Your task to perform on an android device: toggle improve location accuracy Image 0: 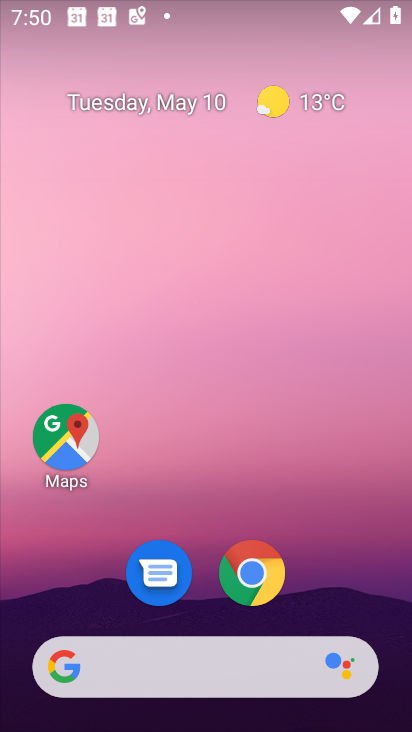
Step 0: drag from (357, 548) to (224, 9)
Your task to perform on an android device: toggle improve location accuracy Image 1: 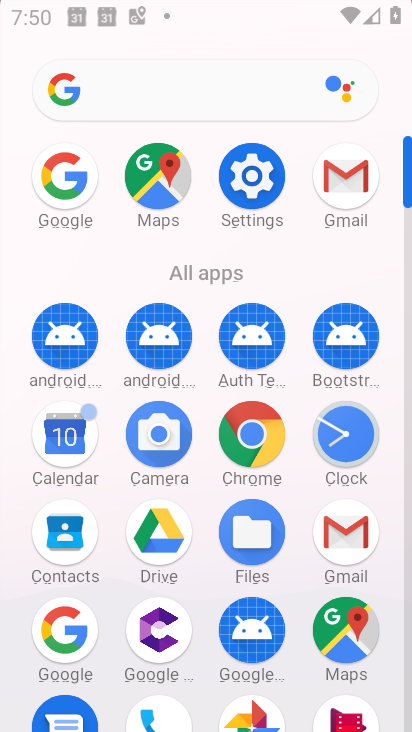
Step 1: click (251, 226)
Your task to perform on an android device: toggle improve location accuracy Image 2: 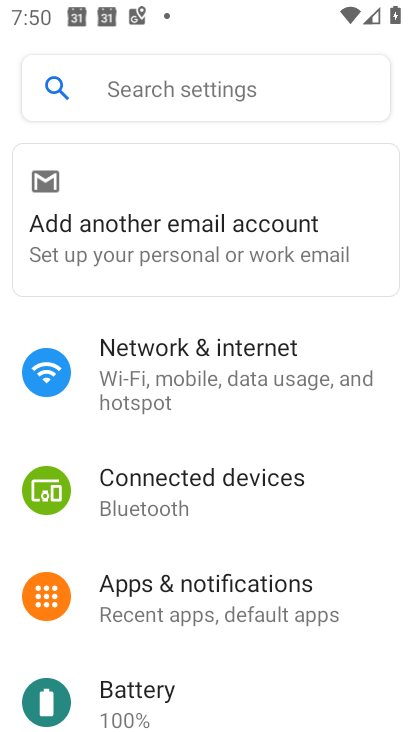
Step 2: drag from (379, 595) to (361, 134)
Your task to perform on an android device: toggle improve location accuracy Image 3: 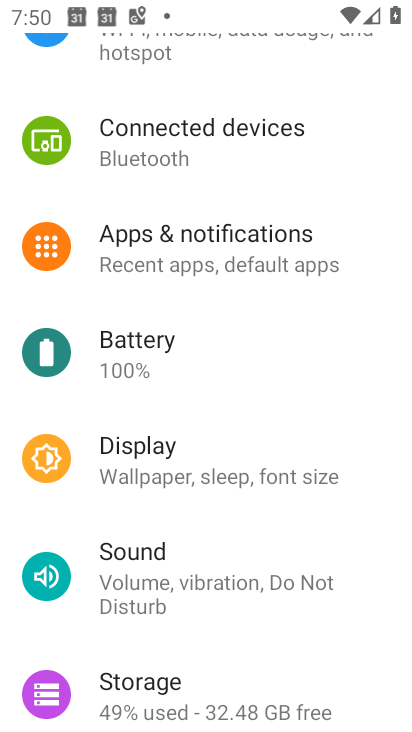
Step 3: drag from (337, 575) to (337, 129)
Your task to perform on an android device: toggle improve location accuracy Image 4: 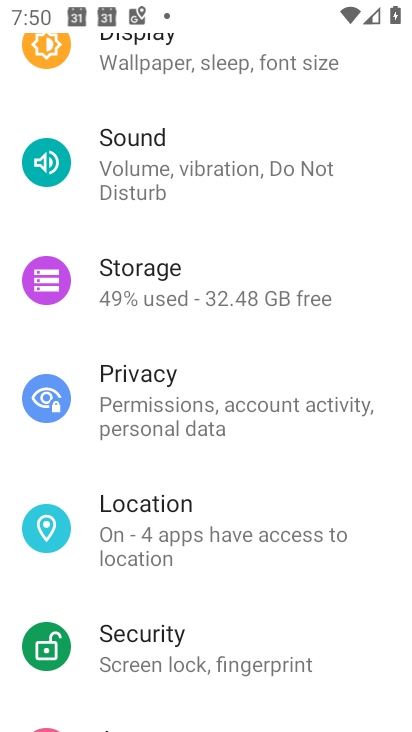
Step 4: click (129, 534)
Your task to perform on an android device: toggle improve location accuracy Image 5: 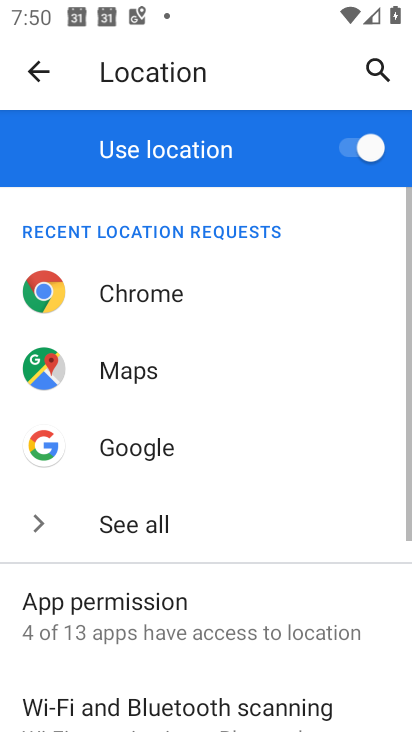
Step 5: drag from (299, 599) to (283, 218)
Your task to perform on an android device: toggle improve location accuracy Image 6: 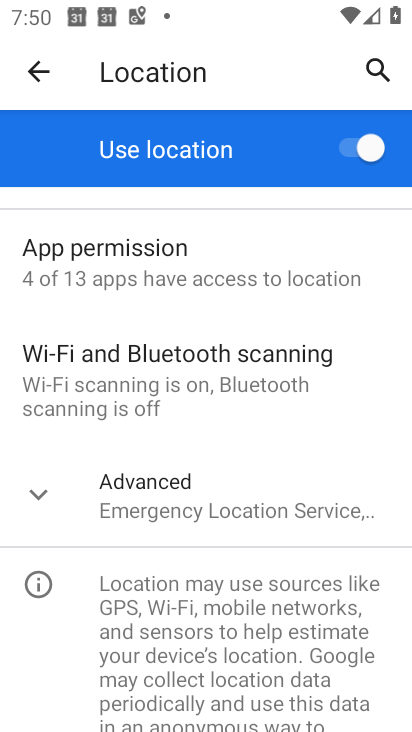
Step 6: click (44, 502)
Your task to perform on an android device: toggle improve location accuracy Image 7: 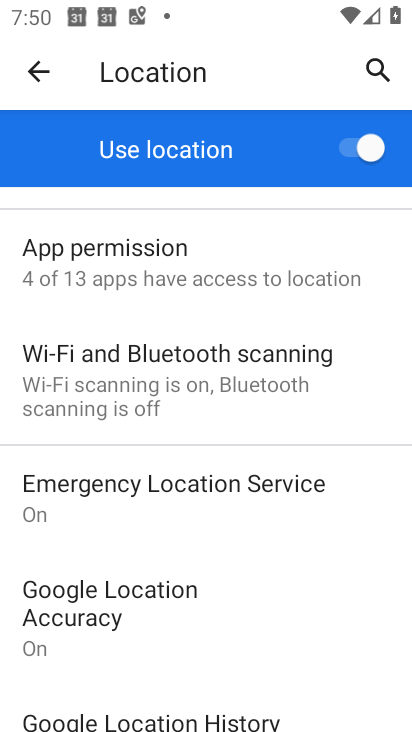
Step 7: click (93, 623)
Your task to perform on an android device: toggle improve location accuracy Image 8: 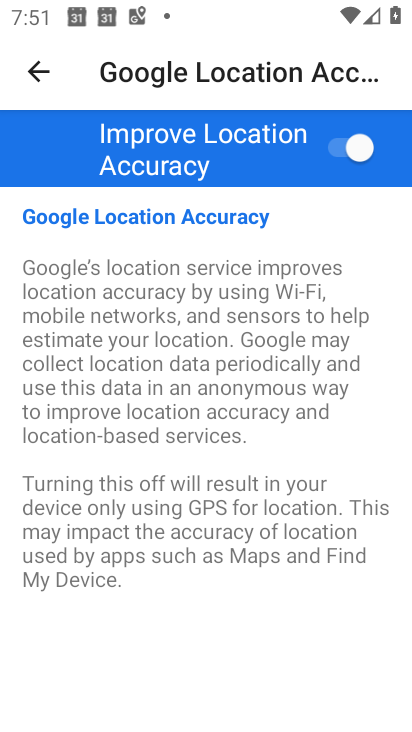
Step 8: click (346, 155)
Your task to perform on an android device: toggle improve location accuracy Image 9: 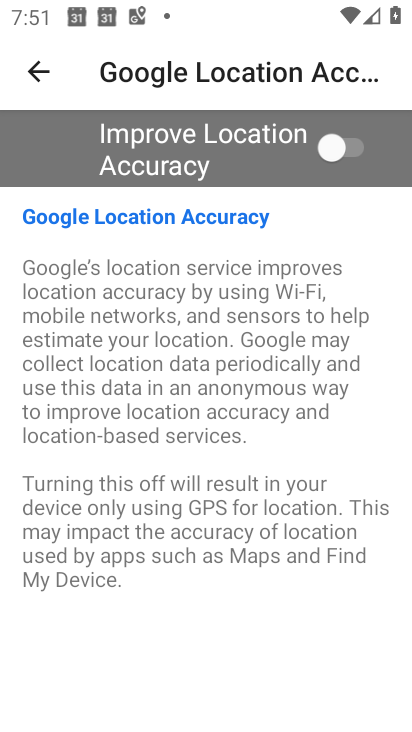
Step 9: task complete